Your task to perform on an android device: Go to accessibility settings Image 0: 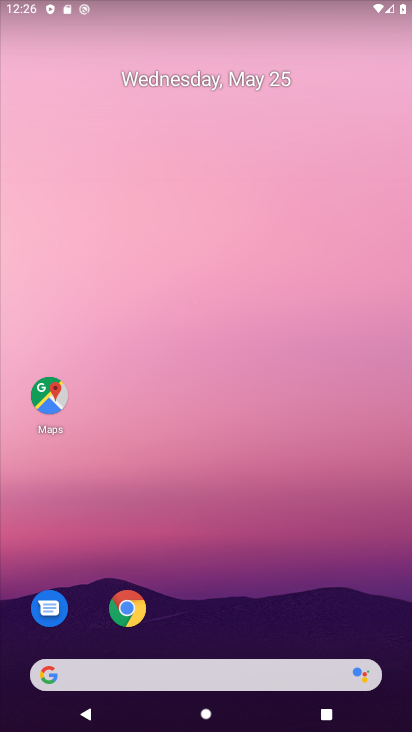
Step 0: drag from (264, 666) to (199, 3)
Your task to perform on an android device: Go to accessibility settings Image 1: 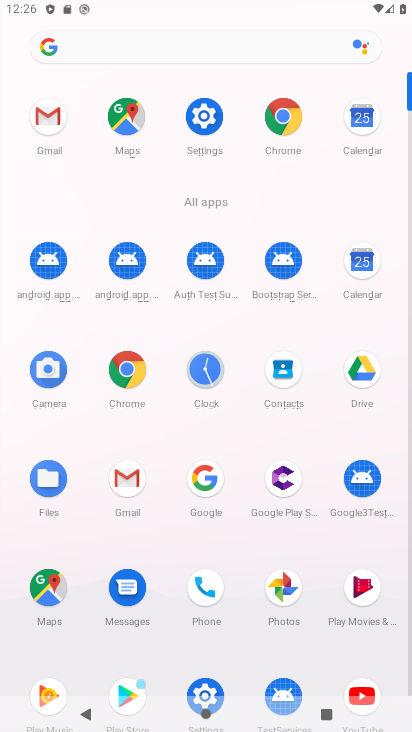
Step 1: click (197, 124)
Your task to perform on an android device: Go to accessibility settings Image 2: 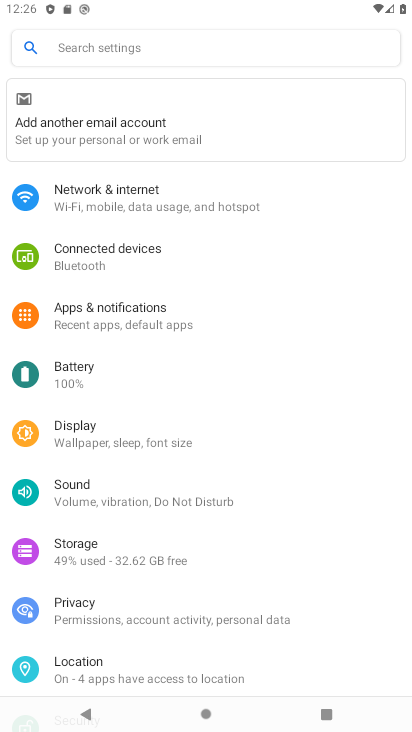
Step 2: drag from (148, 651) to (181, 54)
Your task to perform on an android device: Go to accessibility settings Image 3: 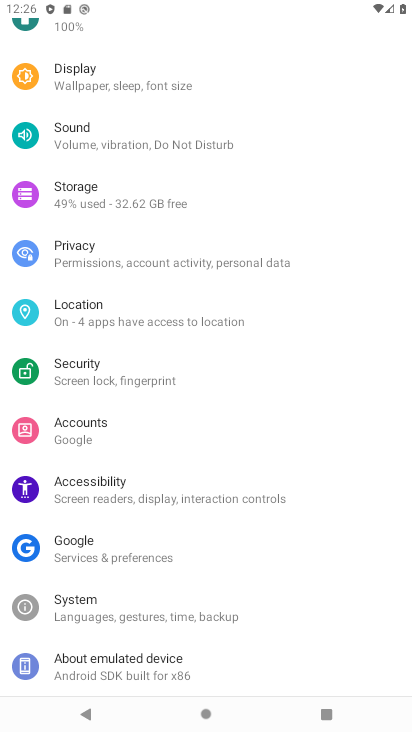
Step 3: click (88, 500)
Your task to perform on an android device: Go to accessibility settings Image 4: 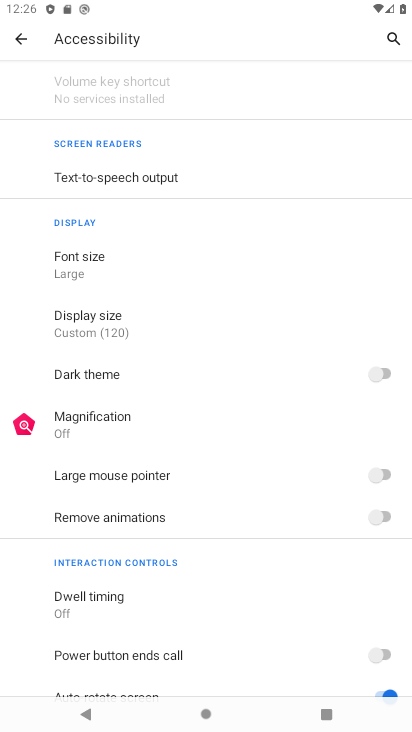
Step 4: task complete